Your task to perform on an android device: open sync settings in chrome Image 0: 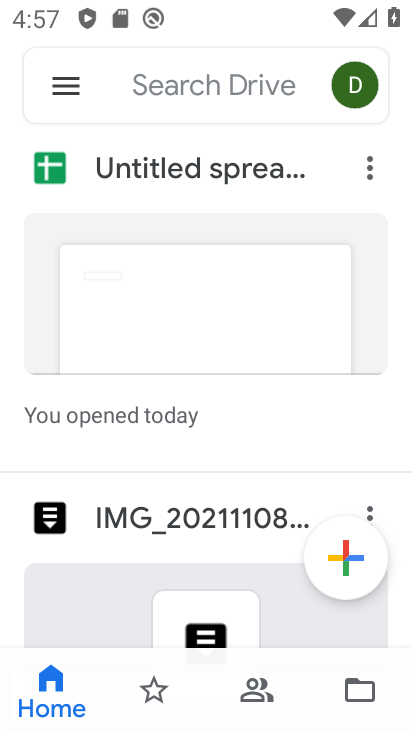
Step 0: press home button
Your task to perform on an android device: open sync settings in chrome Image 1: 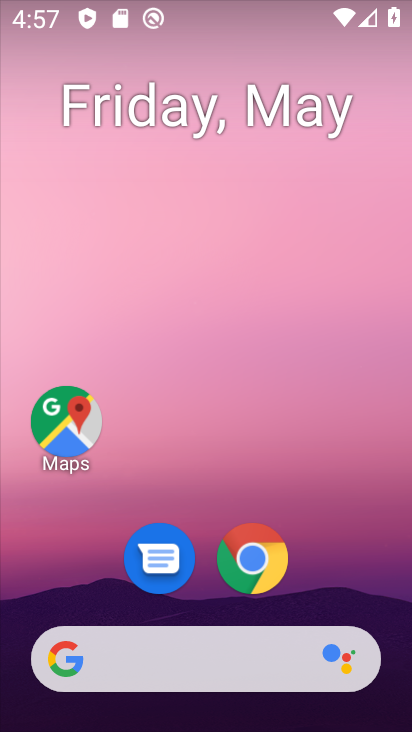
Step 1: drag from (379, 607) to (322, 233)
Your task to perform on an android device: open sync settings in chrome Image 2: 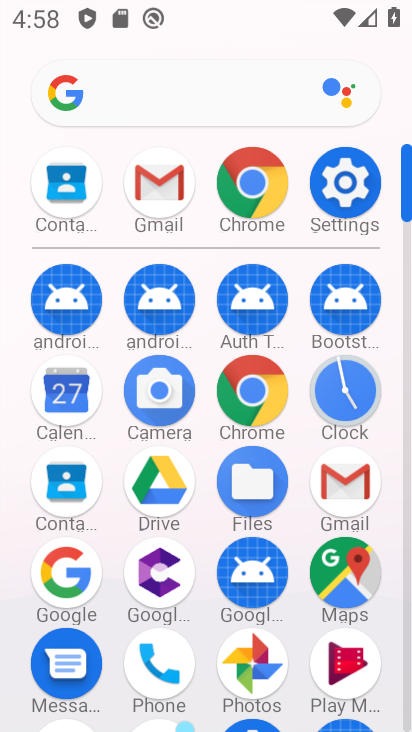
Step 2: click (247, 176)
Your task to perform on an android device: open sync settings in chrome Image 3: 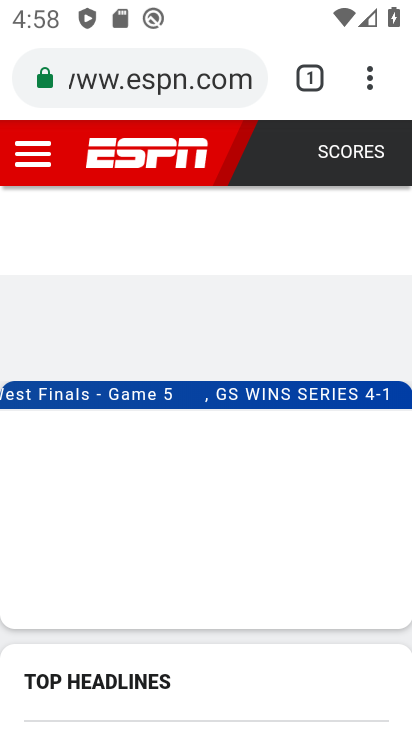
Step 3: click (374, 79)
Your task to perform on an android device: open sync settings in chrome Image 4: 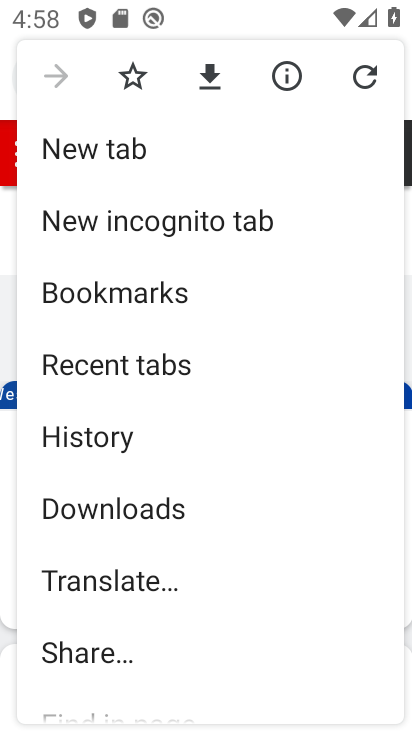
Step 4: drag from (182, 652) to (117, 208)
Your task to perform on an android device: open sync settings in chrome Image 5: 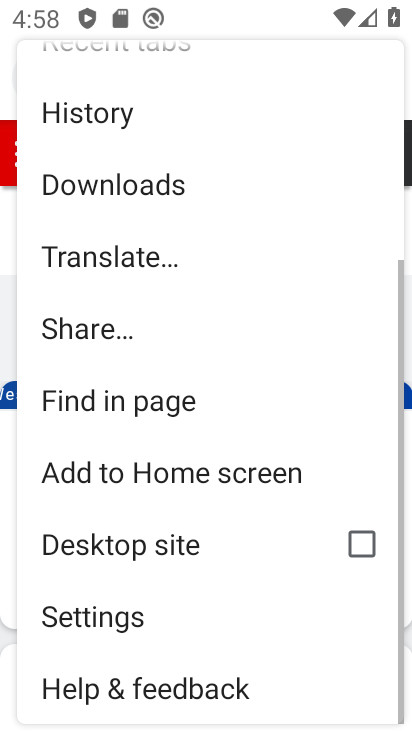
Step 5: click (109, 640)
Your task to perform on an android device: open sync settings in chrome Image 6: 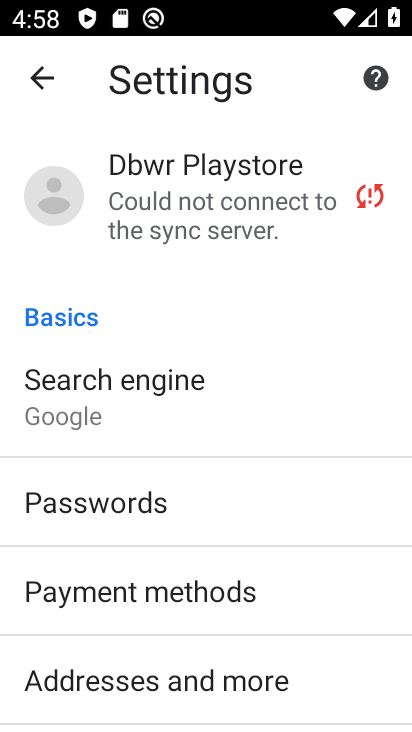
Step 6: click (188, 182)
Your task to perform on an android device: open sync settings in chrome Image 7: 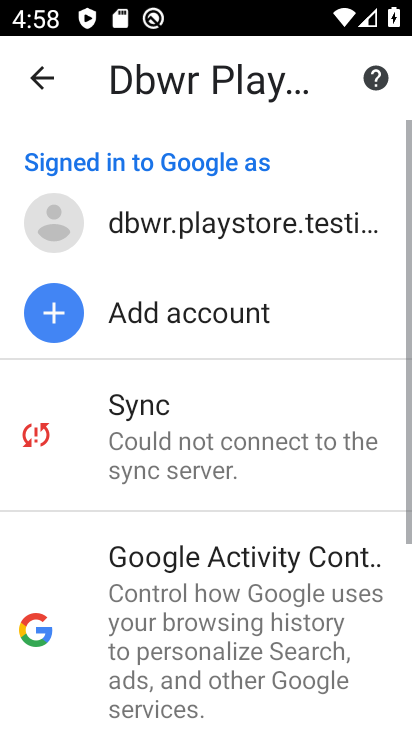
Step 7: click (204, 480)
Your task to perform on an android device: open sync settings in chrome Image 8: 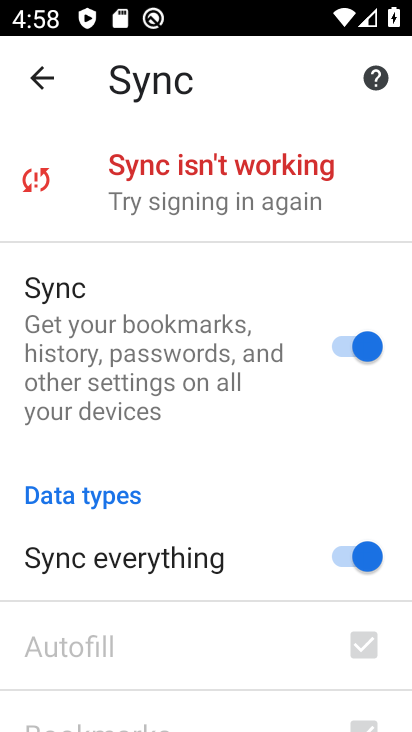
Step 8: task complete